Your task to perform on an android device: turn off data saver in the chrome app Image 0: 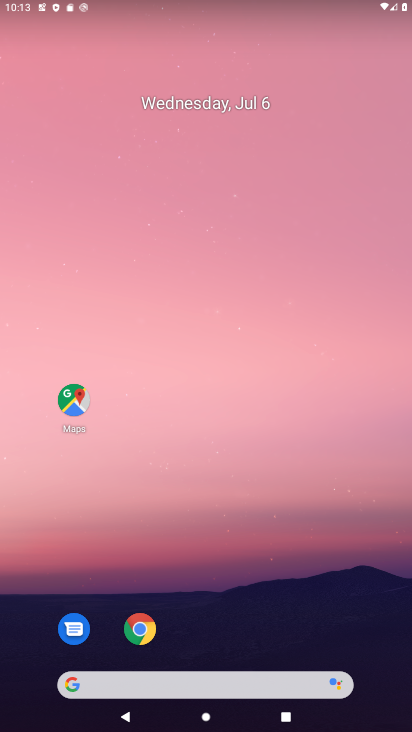
Step 0: drag from (218, 633) to (180, 174)
Your task to perform on an android device: turn off data saver in the chrome app Image 1: 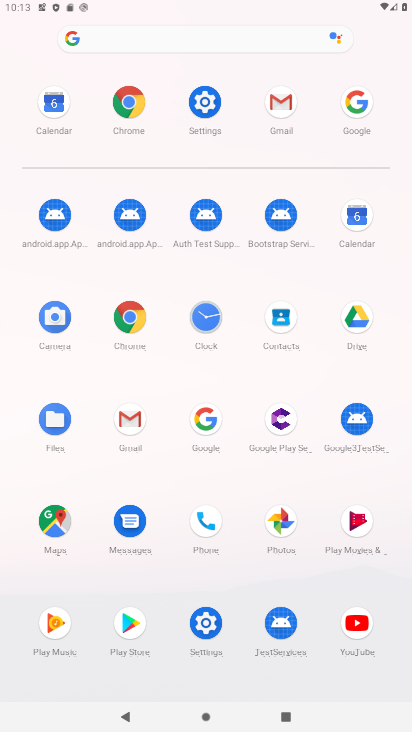
Step 1: click (127, 107)
Your task to perform on an android device: turn off data saver in the chrome app Image 2: 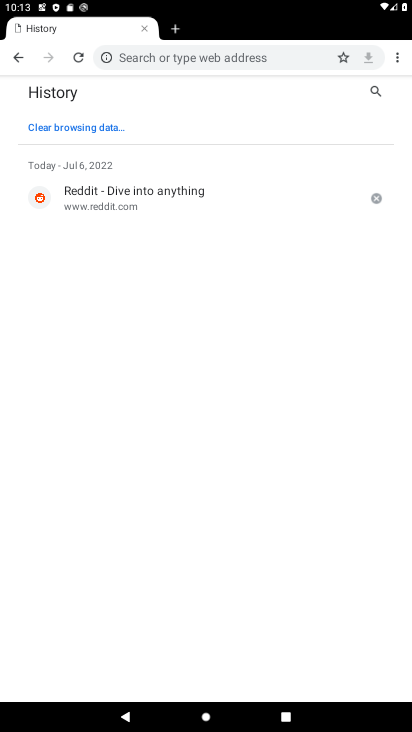
Step 2: click (393, 59)
Your task to perform on an android device: turn off data saver in the chrome app Image 3: 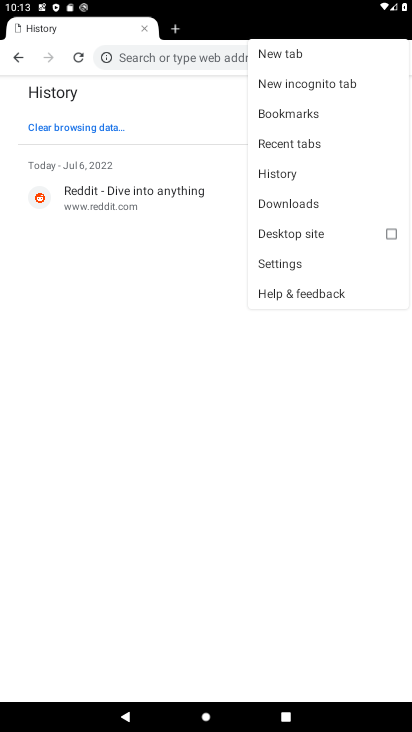
Step 3: click (275, 266)
Your task to perform on an android device: turn off data saver in the chrome app Image 4: 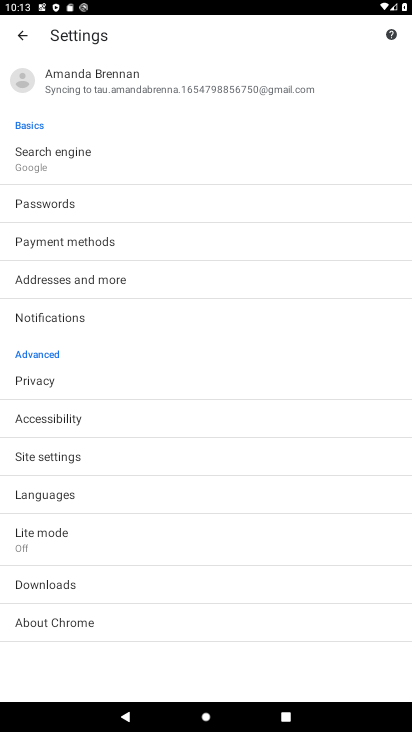
Step 4: click (60, 544)
Your task to perform on an android device: turn off data saver in the chrome app Image 5: 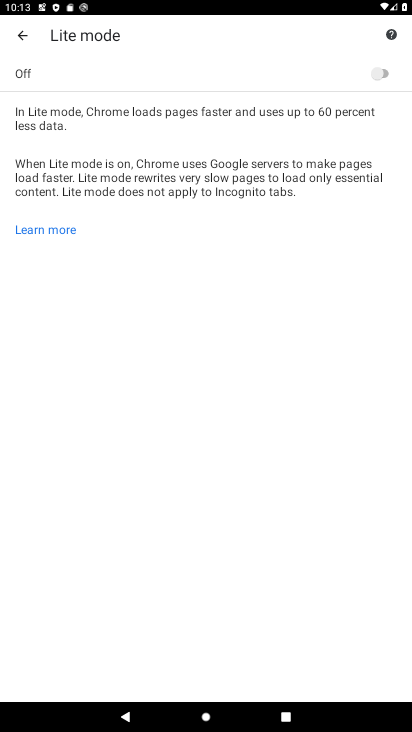
Step 5: task complete